Your task to perform on an android device: toggle wifi Image 0: 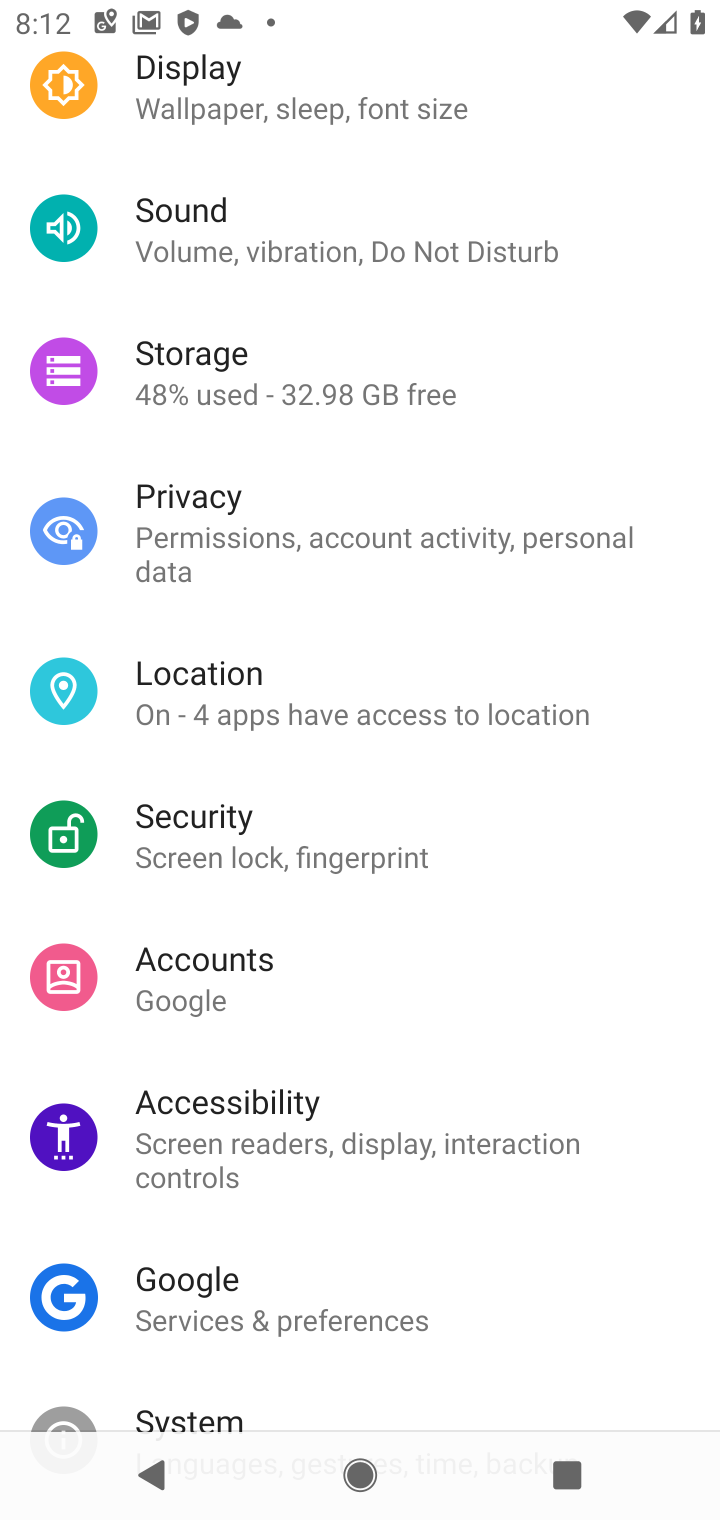
Step 0: drag from (545, 303) to (557, 862)
Your task to perform on an android device: toggle wifi Image 1: 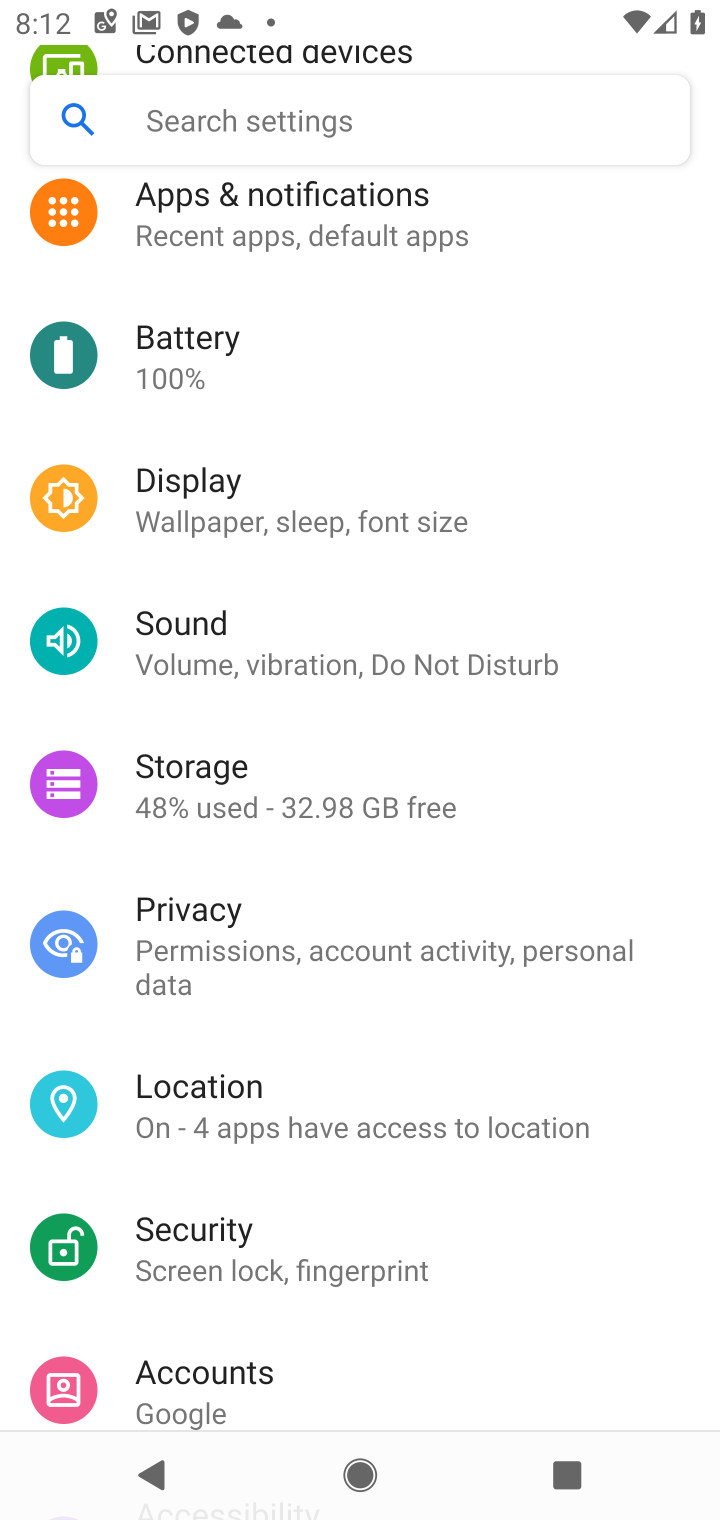
Step 1: drag from (587, 301) to (643, 1027)
Your task to perform on an android device: toggle wifi Image 2: 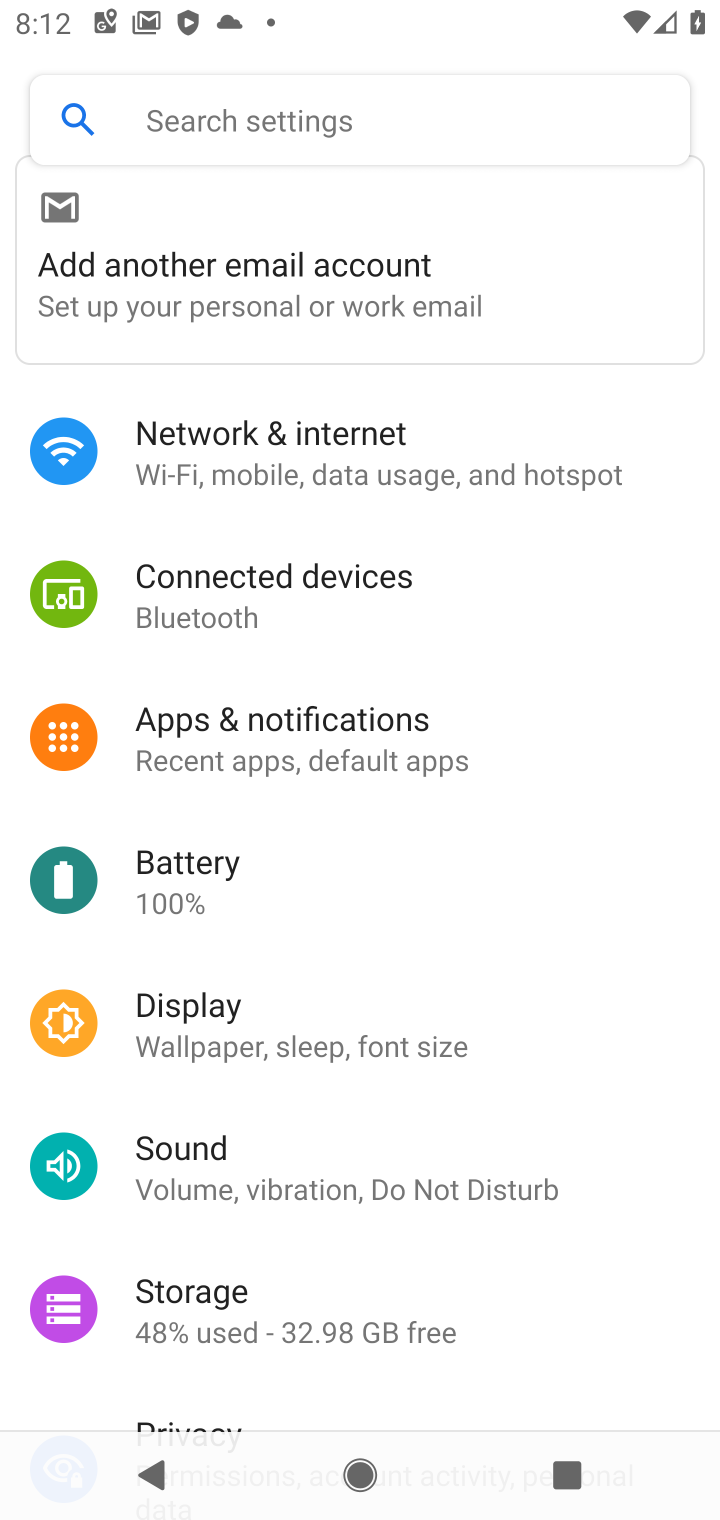
Step 2: click (240, 440)
Your task to perform on an android device: toggle wifi Image 3: 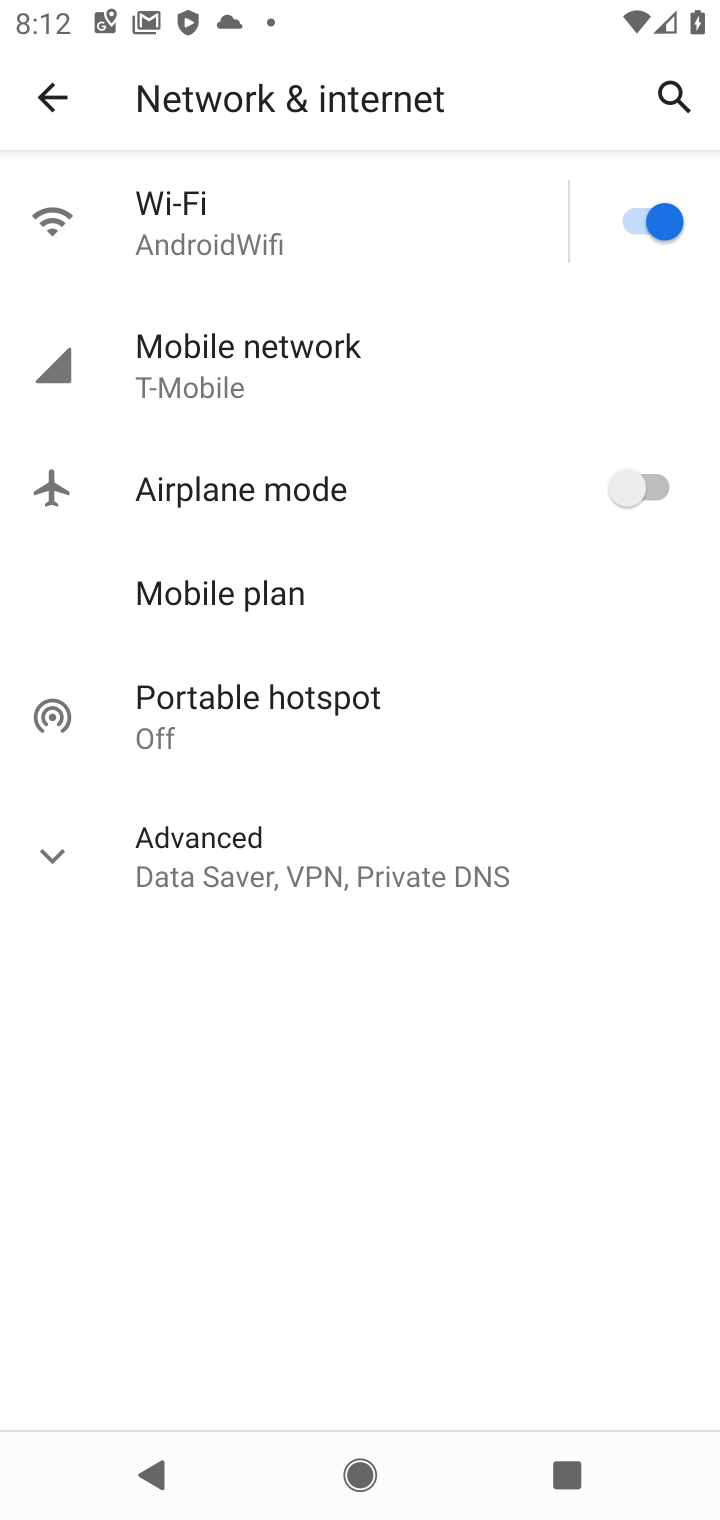
Step 3: click (624, 214)
Your task to perform on an android device: toggle wifi Image 4: 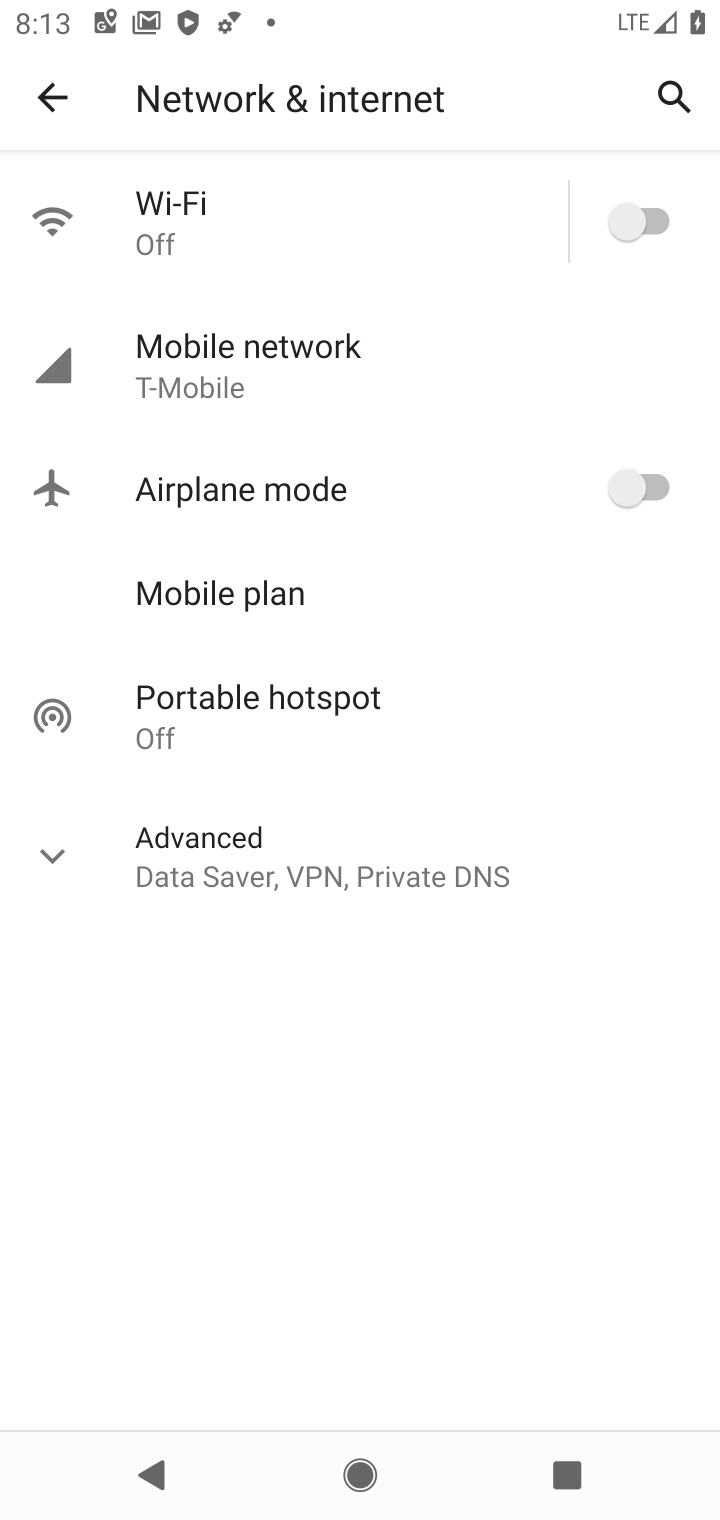
Step 4: task complete